Your task to perform on an android device: Find coffee shops on Maps Image 0: 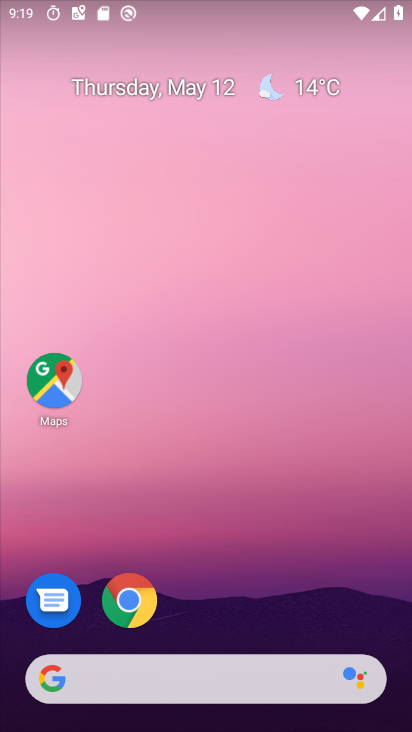
Step 0: drag from (272, 577) to (106, 219)
Your task to perform on an android device: Find coffee shops on Maps Image 1: 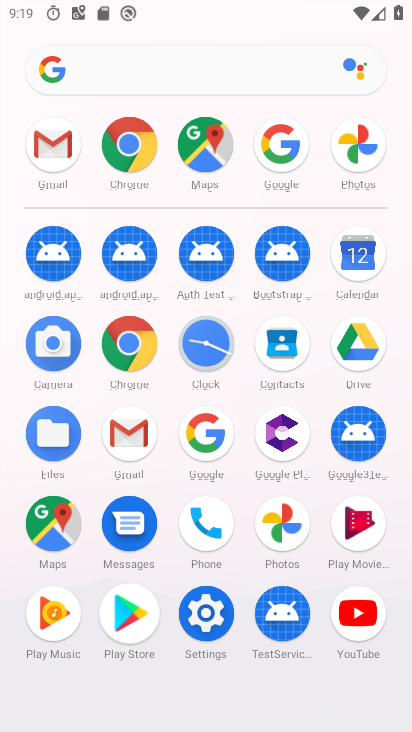
Step 1: click (55, 530)
Your task to perform on an android device: Find coffee shops on Maps Image 2: 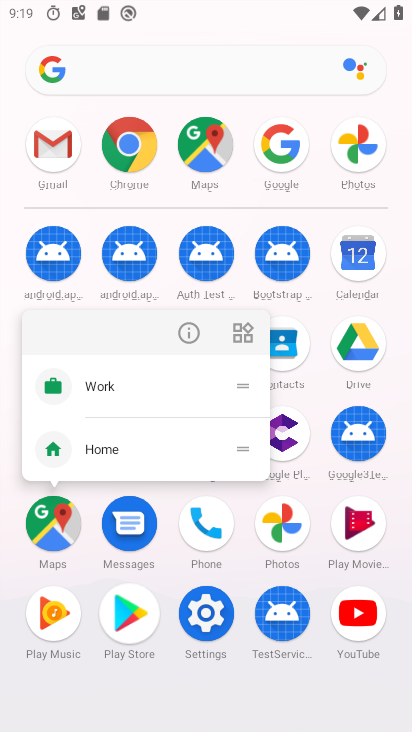
Step 2: click (59, 508)
Your task to perform on an android device: Find coffee shops on Maps Image 3: 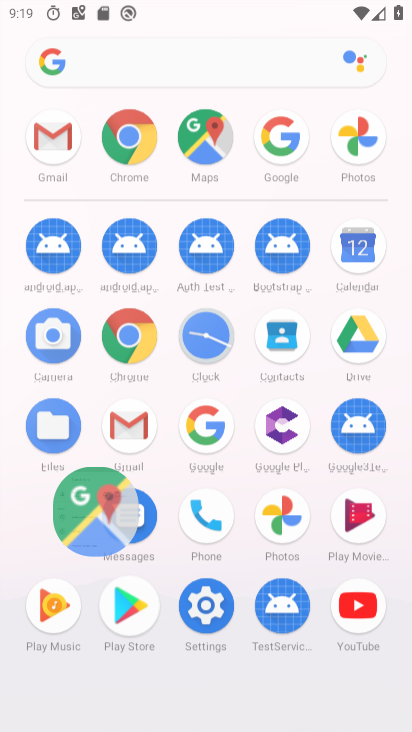
Step 3: click (59, 508)
Your task to perform on an android device: Find coffee shops on Maps Image 4: 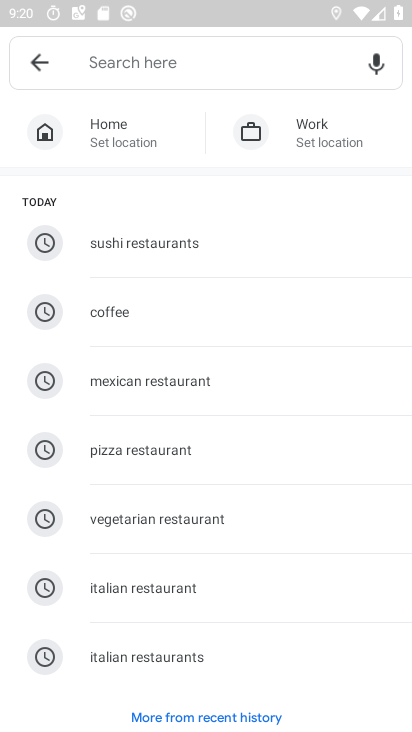
Step 4: drag from (206, 592) to (49, 149)
Your task to perform on an android device: Find coffee shops on Maps Image 5: 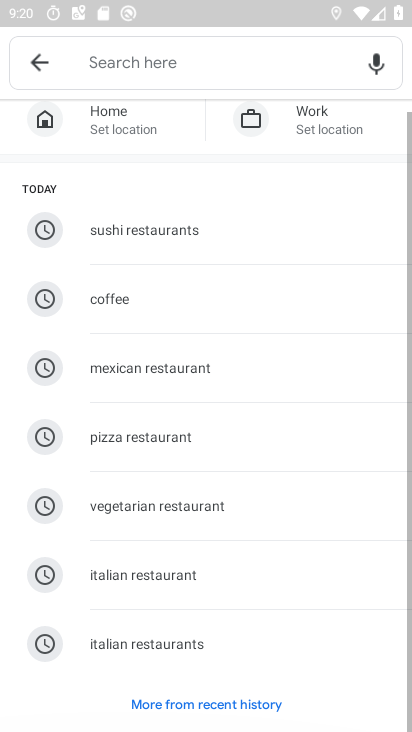
Step 5: click (178, 107)
Your task to perform on an android device: Find coffee shops on Maps Image 6: 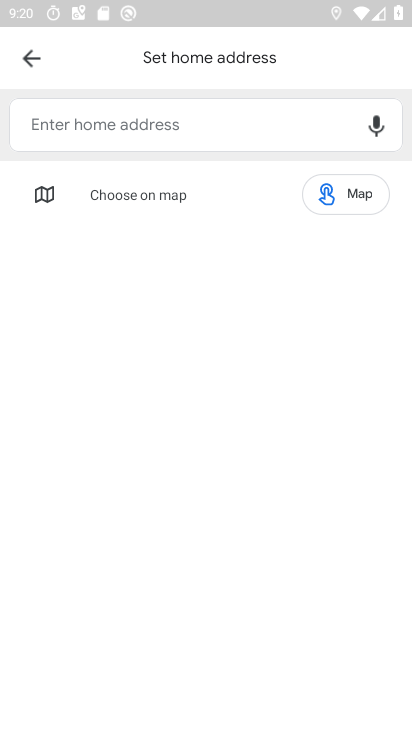
Step 6: drag from (240, 474) to (200, 85)
Your task to perform on an android device: Find coffee shops on Maps Image 7: 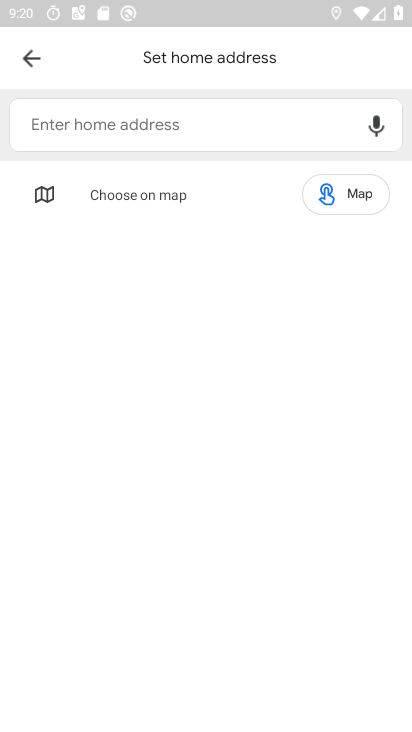
Step 7: click (23, 56)
Your task to perform on an android device: Find coffee shops on Maps Image 8: 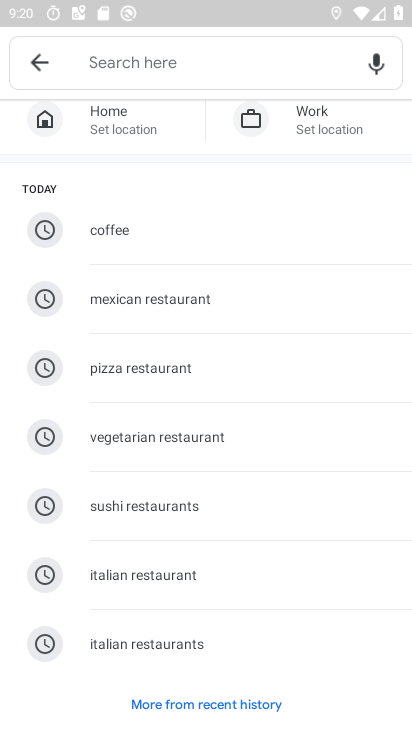
Step 8: drag from (167, 515) to (108, 115)
Your task to perform on an android device: Find coffee shops on Maps Image 9: 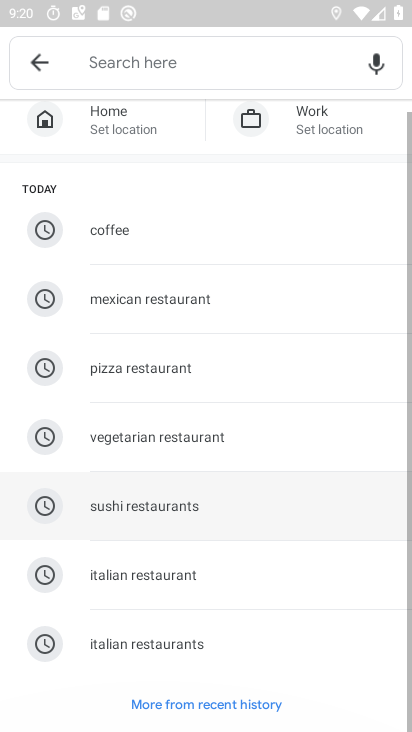
Step 9: drag from (211, 453) to (163, 163)
Your task to perform on an android device: Find coffee shops on Maps Image 10: 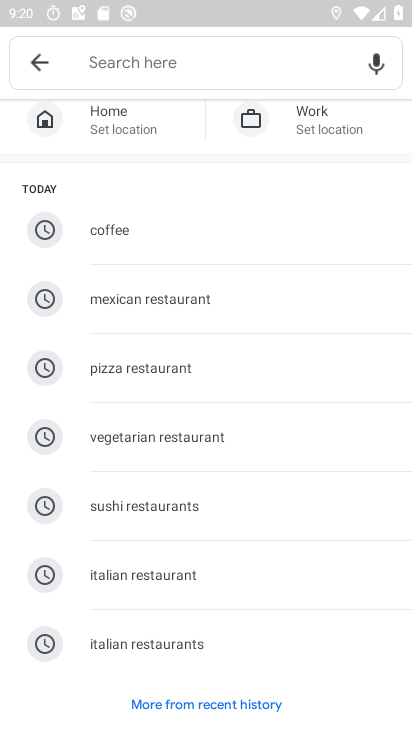
Step 10: drag from (188, 432) to (72, 114)
Your task to perform on an android device: Find coffee shops on Maps Image 11: 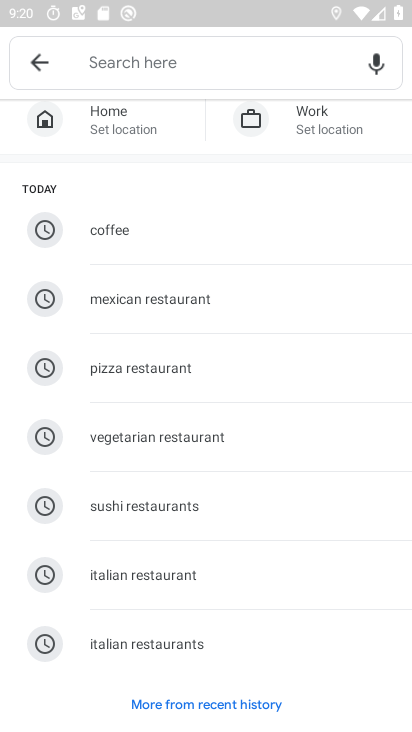
Step 11: drag from (167, 406) to (105, 198)
Your task to perform on an android device: Find coffee shops on Maps Image 12: 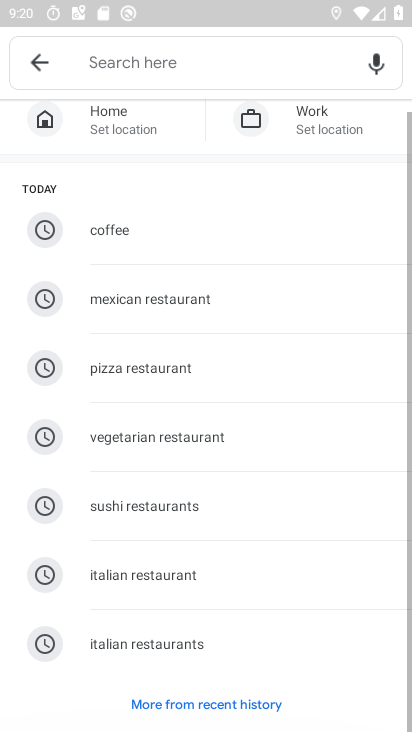
Step 12: click (40, 63)
Your task to perform on an android device: Find coffee shops on Maps Image 13: 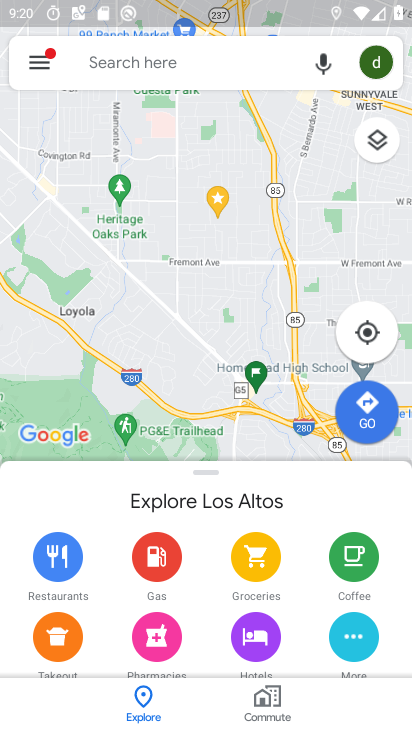
Step 13: click (33, 68)
Your task to perform on an android device: Find coffee shops on Maps Image 14: 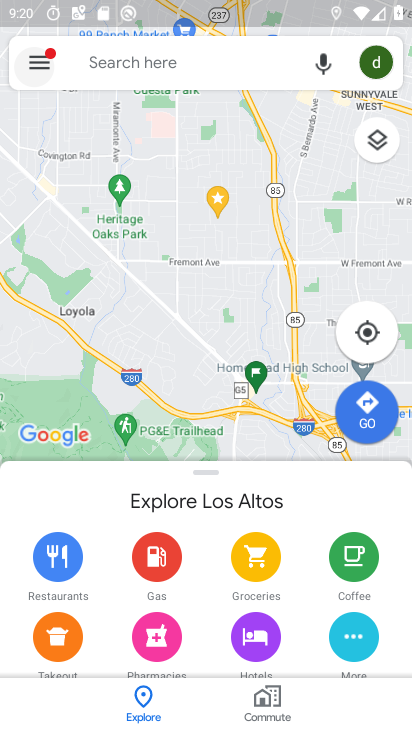
Step 14: click (34, 68)
Your task to perform on an android device: Find coffee shops on Maps Image 15: 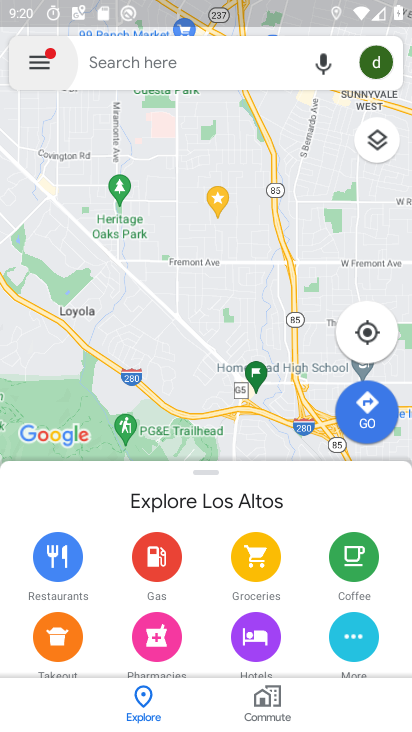
Step 15: click (34, 68)
Your task to perform on an android device: Find coffee shops on Maps Image 16: 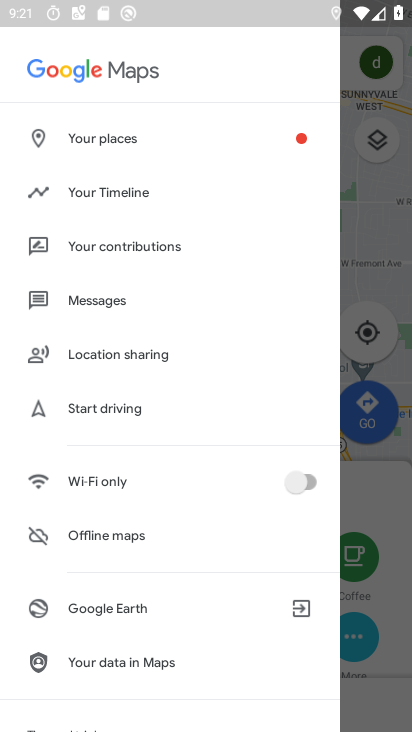
Step 16: click (364, 219)
Your task to perform on an android device: Find coffee shops on Maps Image 17: 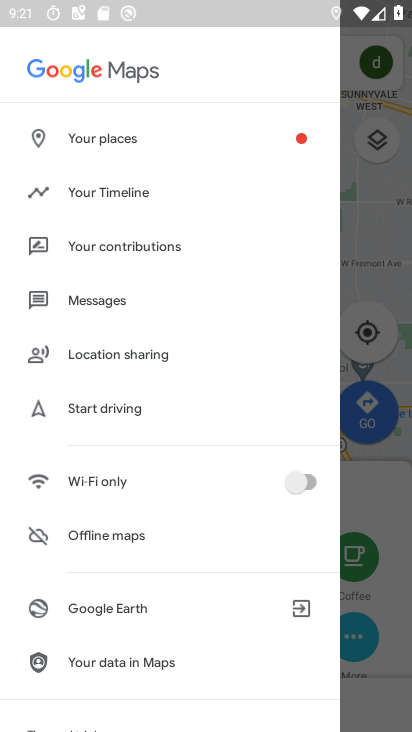
Step 17: click (364, 219)
Your task to perform on an android device: Find coffee shops on Maps Image 18: 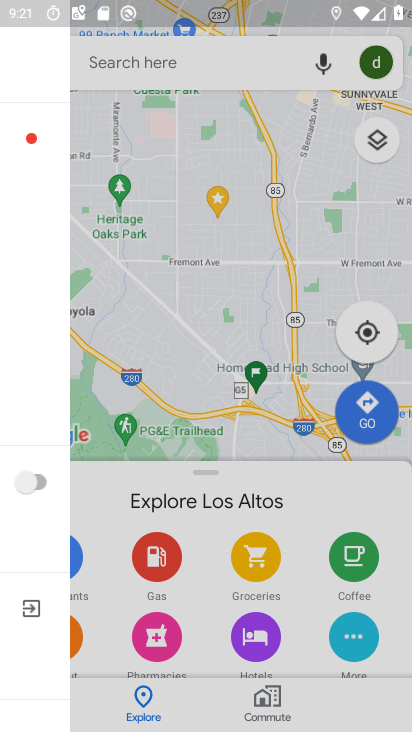
Step 18: click (364, 219)
Your task to perform on an android device: Find coffee shops on Maps Image 19: 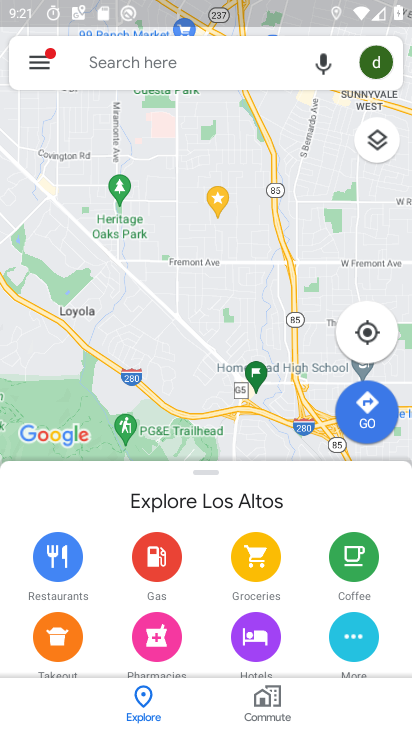
Step 19: click (364, 219)
Your task to perform on an android device: Find coffee shops on Maps Image 20: 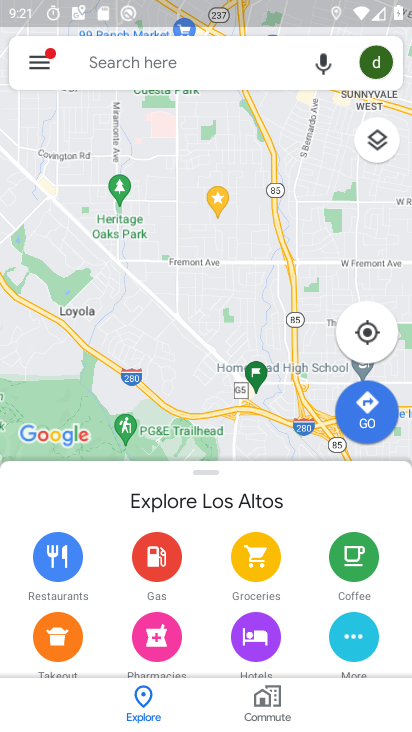
Step 20: task complete